Your task to perform on an android device: What's the weather going to be this weekend? Image 0: 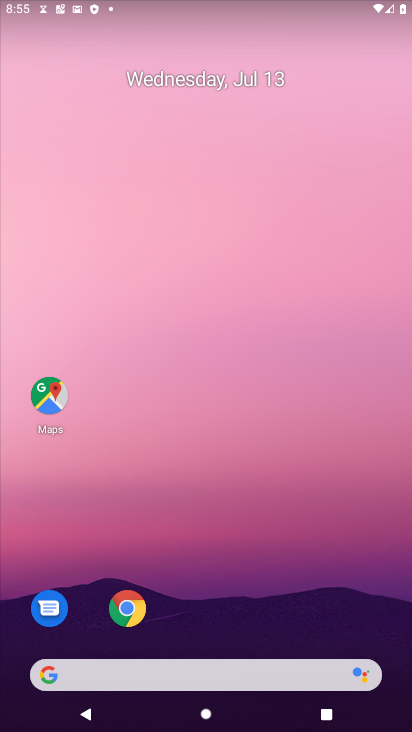
Step 0: click (165, 669)
Your task to perform on an android device: What's the weather going to be this weekend? Image 1: 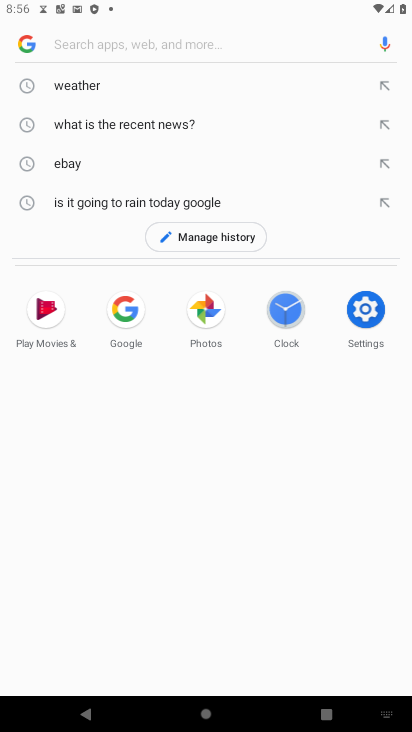
Step 1: type "What's the weather going to be this weekend?"
Your task to perform on an android device: What's the weather going to be this weekend? Image 2: 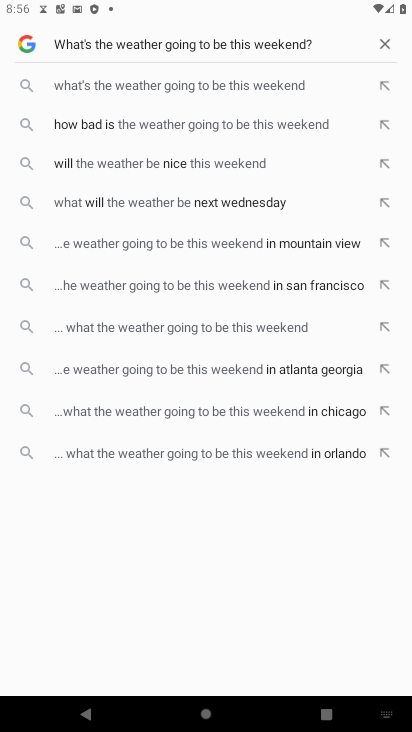
Step 2: click (250, 88)
Your task to perform on an android device: What's the weather going to be this weekend? Image 3: 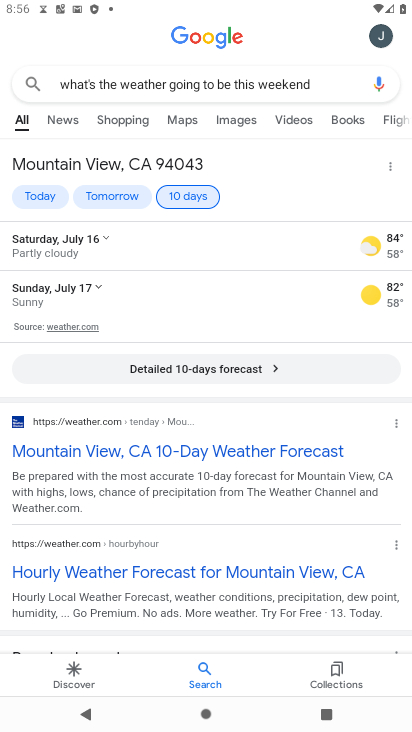
Step 3: task complete